Your task to perform on an android device: Open Google Maps and go to "Timeline" Image 0: 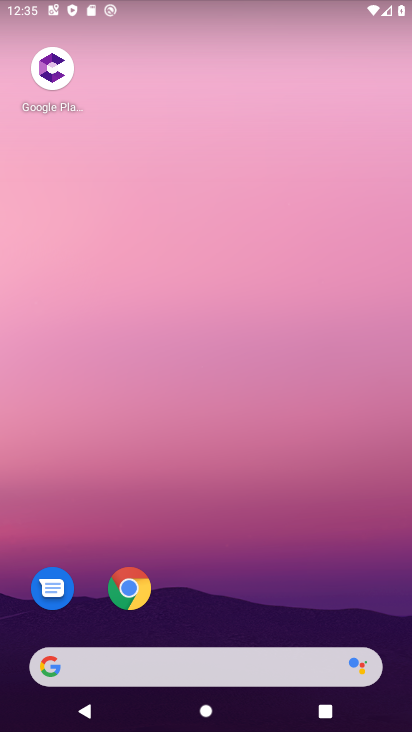
Step 0: drag from (143, 636) to (212, 179)
Your task to perform on an android device: Open Google Maps and go to "Timeline" Image 1: 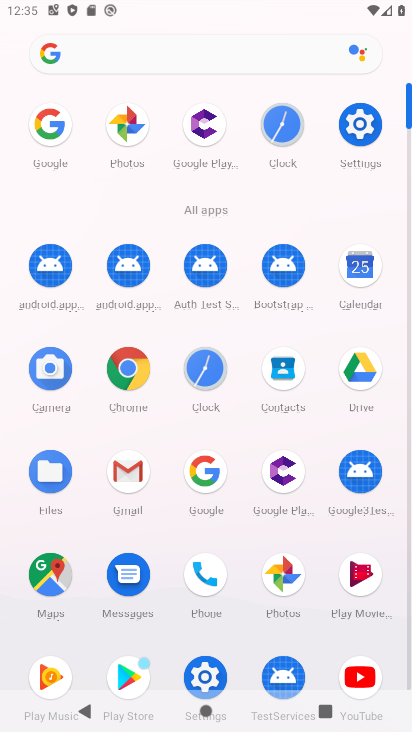
Step 1: click (49, 583)
Your task to perform on an android device: Open Google Maps and go to "Timeline" Image 2: 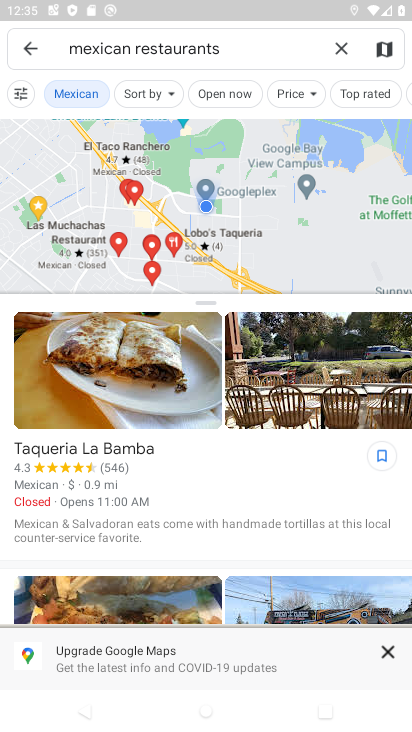
Step 2: click (30, 50)
Your task to perform on an android device: Open Google Maps and go to "Timeline" Image 3: 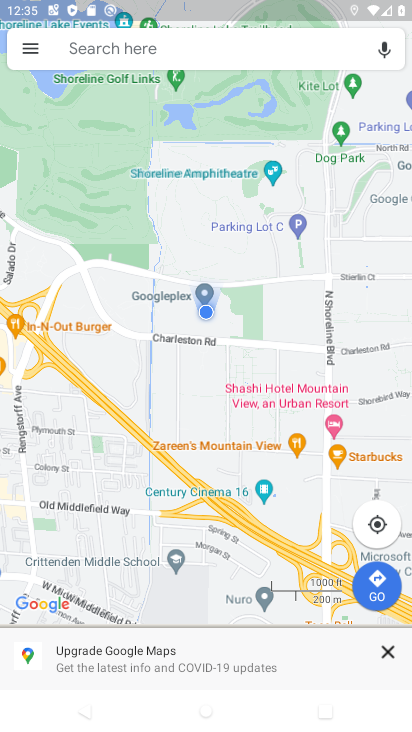
Step 3: click (31, 52)
Your task to perform on an android device: Open Google Maps and go to "Timeline" Image 4: 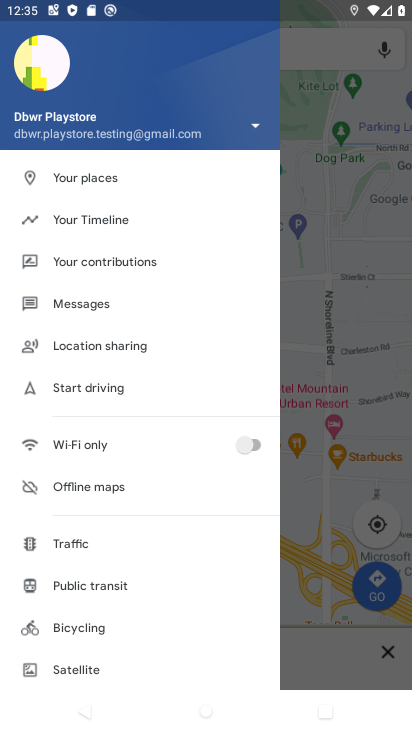
Step 4: click (130, 226)
Your task to perform on an android device: Open Google Maps and go to "Timeline" Image 5: 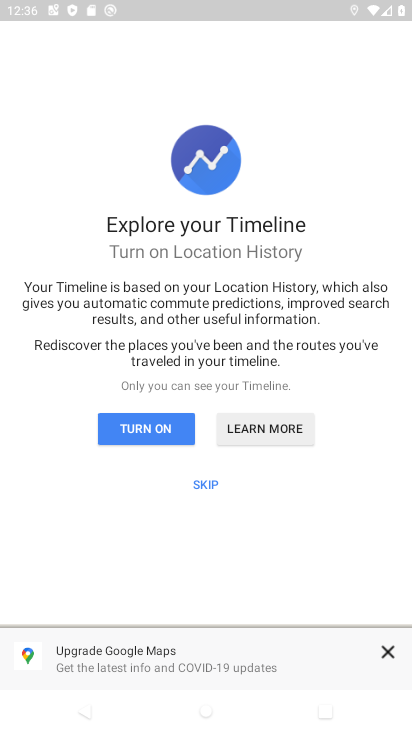
Step 5: click (215, 484)
Your task to perform on an android device: Open Google Maps and go to "Timeline" Image 6: 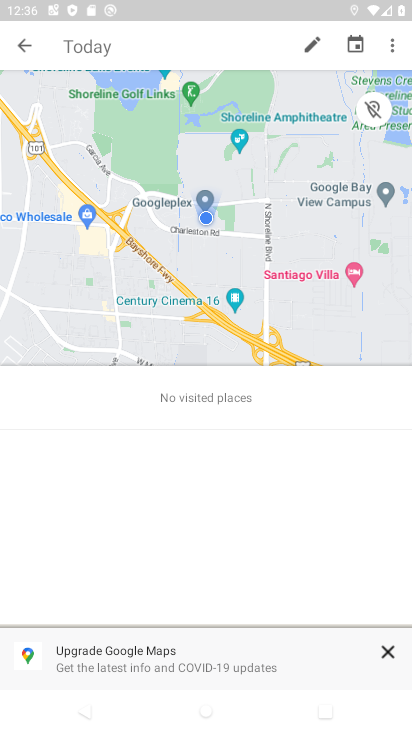
Step 6: click (385, 655)
Your task to perform on an android device: Open Google Maps and go to "Timeline" Image 7: 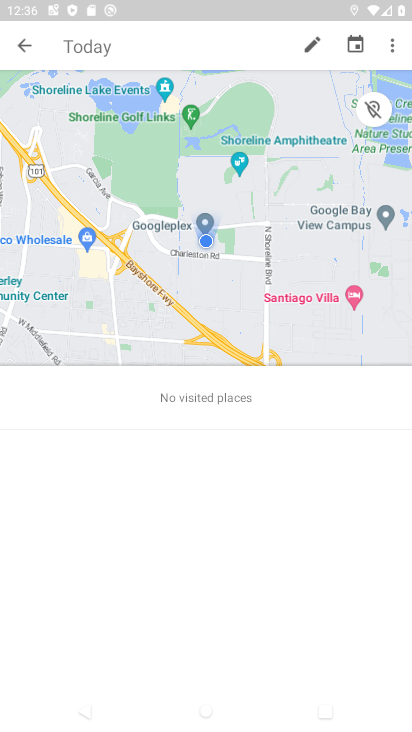
Step 7: task complete